Your task to perform on an android device: Set the phone to "Do not disturb". Image 0: 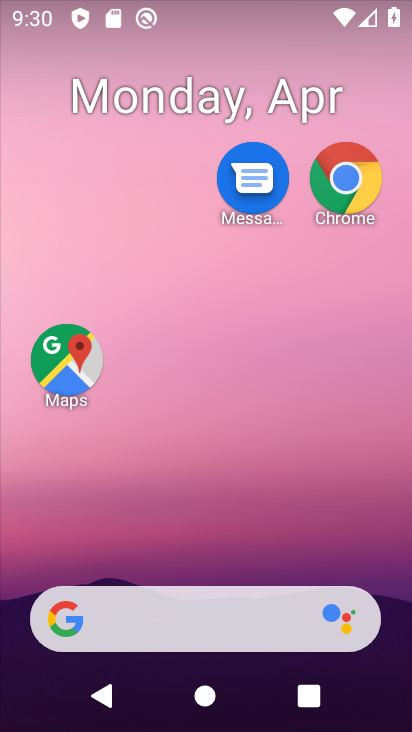
Step 0: drag from (280, 603) to (305, 289)
Your task to perform on an android device: Set the phone to "Do not disturb". Image 1: 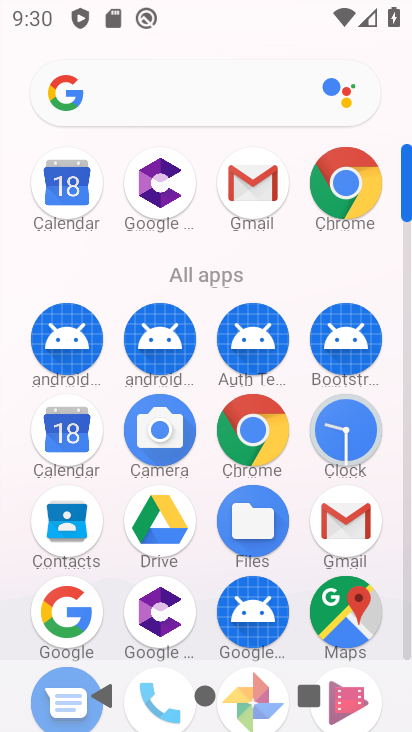
Step 1: drag from (268, 516) to (292, 171)
Your task to perform on an android device: Set the phone to "Do not disturb". Image 2: 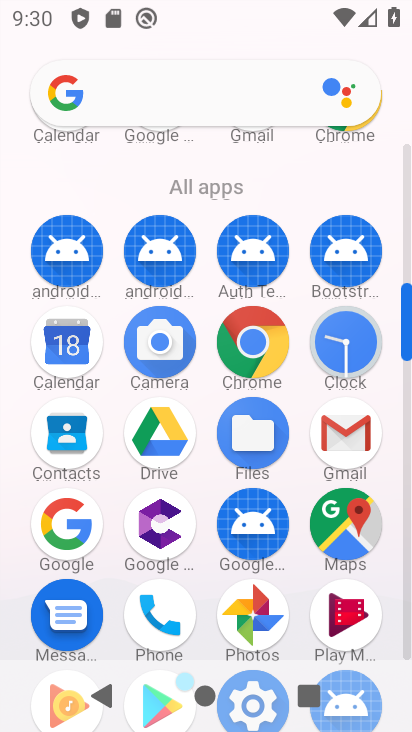
Step 2: drag from (281, 481) to (370, 63)
Your task to perform on an android device: Set the phone to "Do not disturb". Image 3: 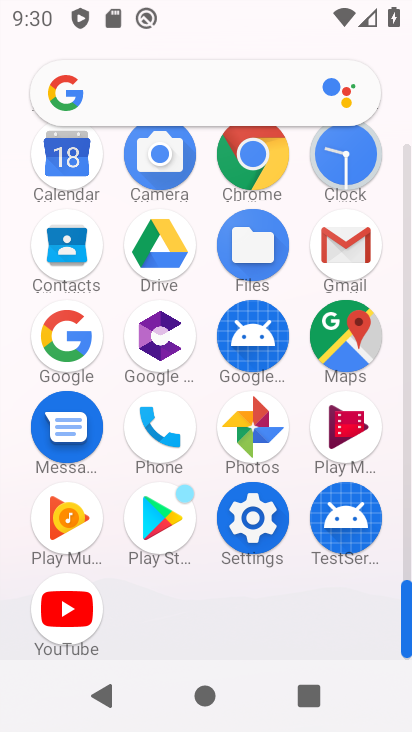
Step 3: click (254, 539)
Your task to perform on an android device: Set the phone to "Do not disturb". Image 4: 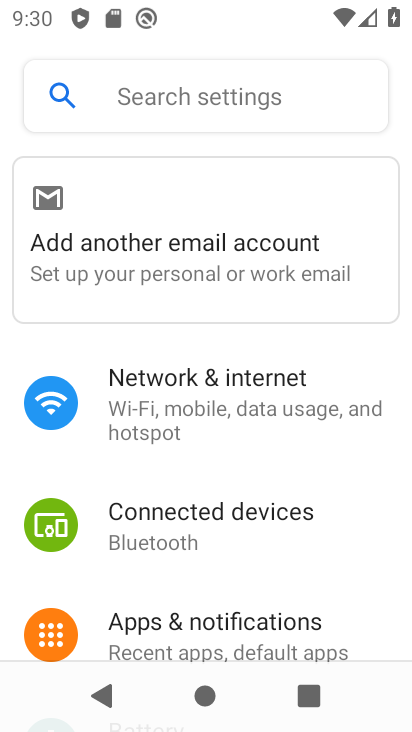
Step 4: drag from (291, 18) to (199, 453)
Your task to perform on an android device: Set the phone to "Do not disturb". Image 5: 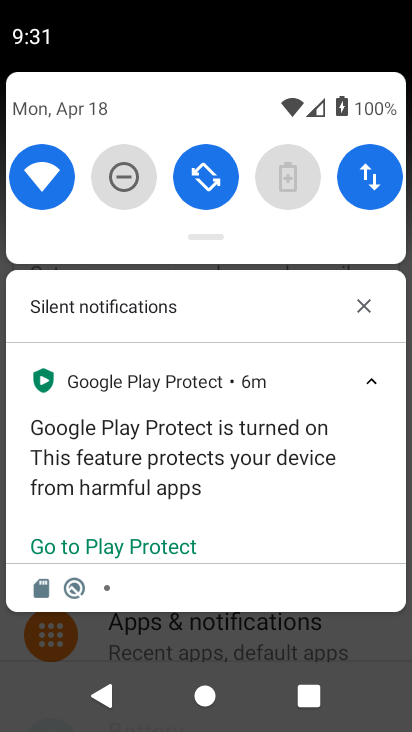
Step 5: click (130, 191)
Your task to perform on an android device: Set the phone to "Do not disturb". Image 6: 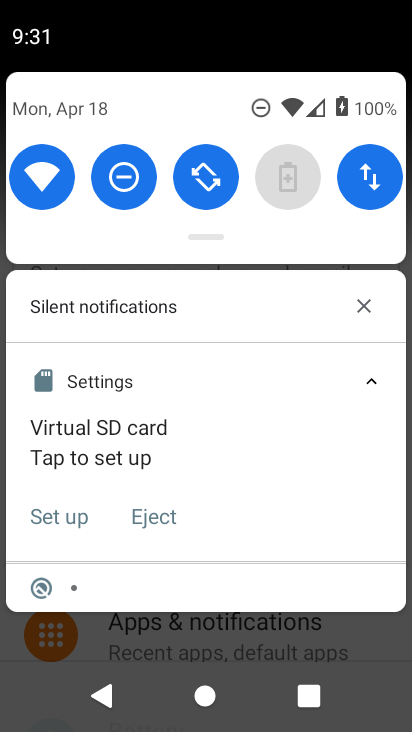
Step 6: task complete